Your task to perform on an android device: star an email in the gmail app Image 0: 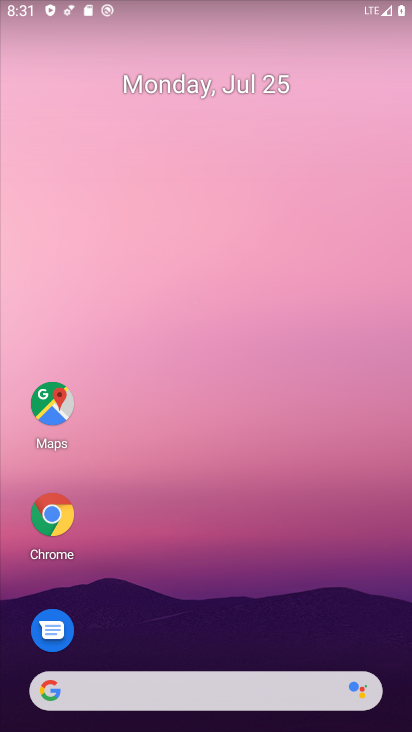
Step 0: drag from (17, 691) to (211, 171)
Your task to perform on an android device: star an email in the gmail app Image 1: 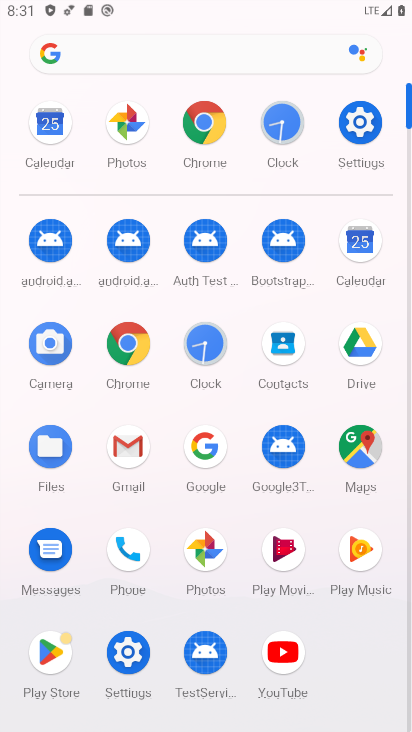
Step 1: click (118, 447)
Your task to perform on an android device: star an email in the gmail app Image 2: 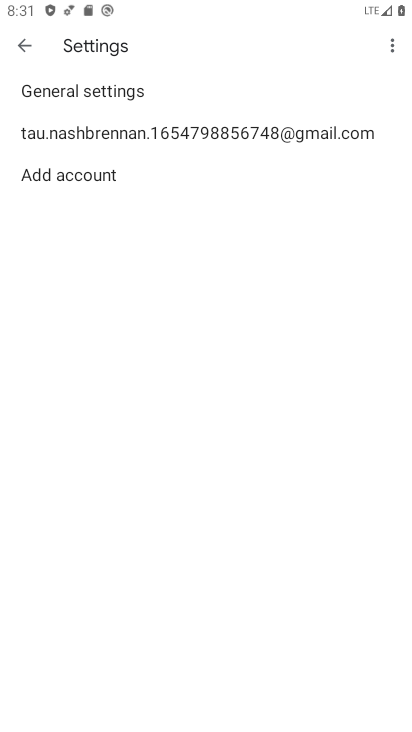
Step 2: click (28, 41)
Your task to perform on an android device: star an email in the gmail app Image 3: 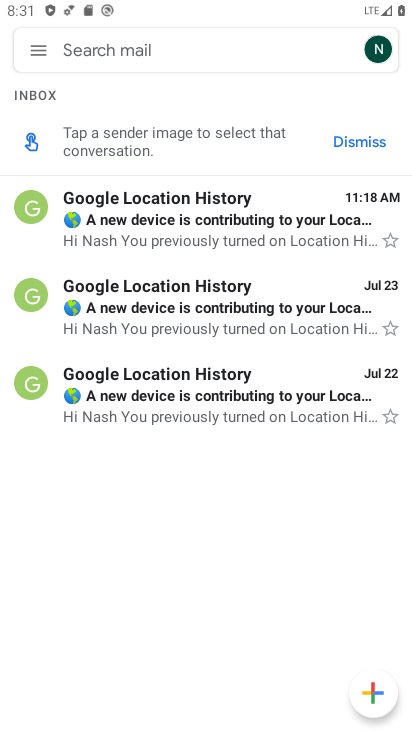
Step 3: click (29, 53)
Your task to perform on an android device: star an email in the gmail app Image 4: 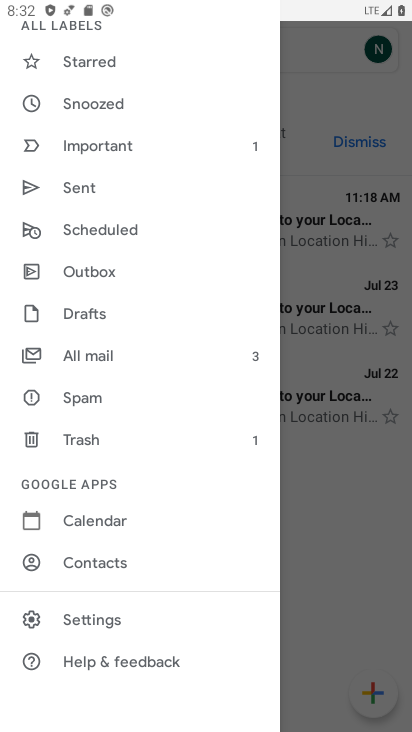
Step 4: click (100, 70)
Your task to perform on an android device: star an email in the gmail app Image 5: 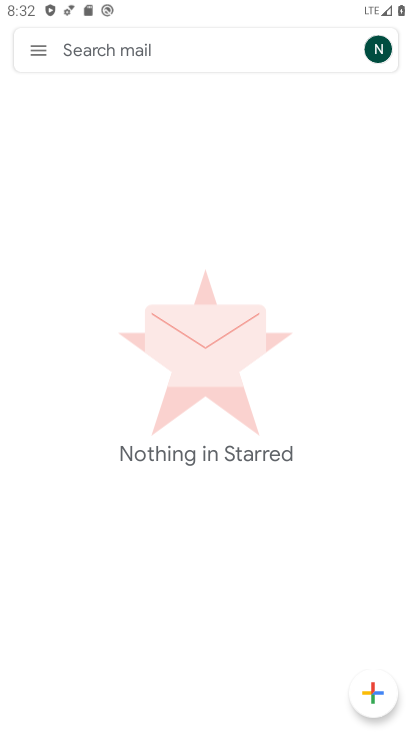
Step 5: task complete